Your task to perform on an android device: Go to eBay Image 0: 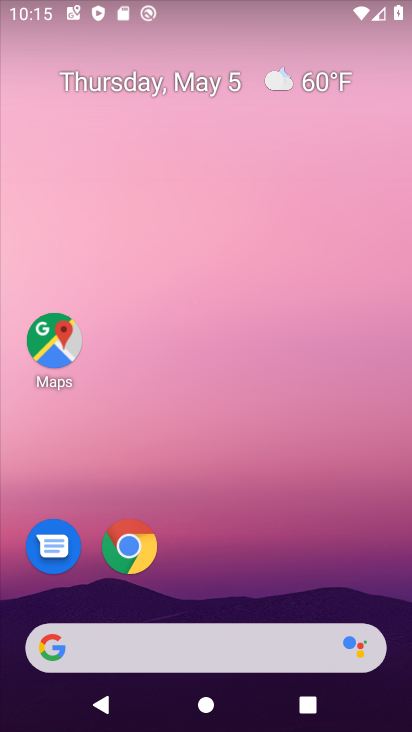
Step 0: drag from (227, 591) to (205, 180)
Your task to perform on an android device: Go to eBay Image 1: 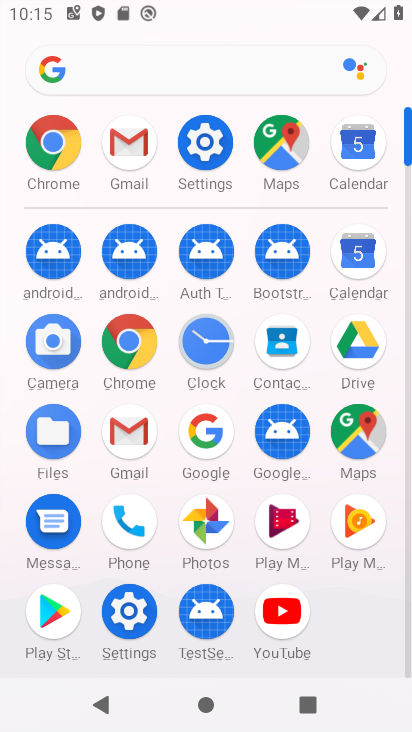
Step 1: click (65, 141)
Your task to perform on an android device: Go to eBay Image 2: 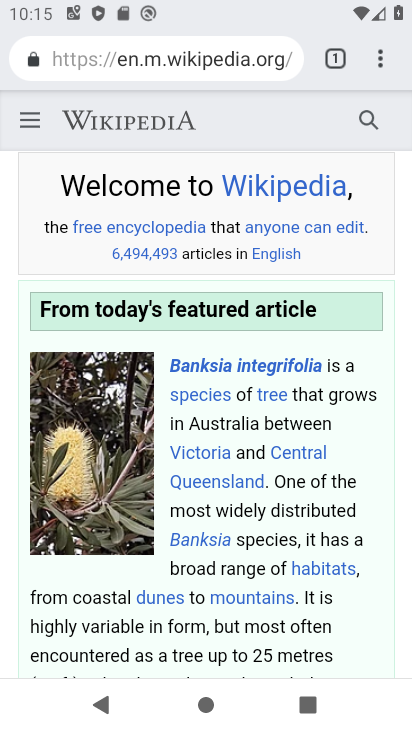
Step 2: click (181, 61)
Your task to perform on an android device: Go to eBay Image 3: 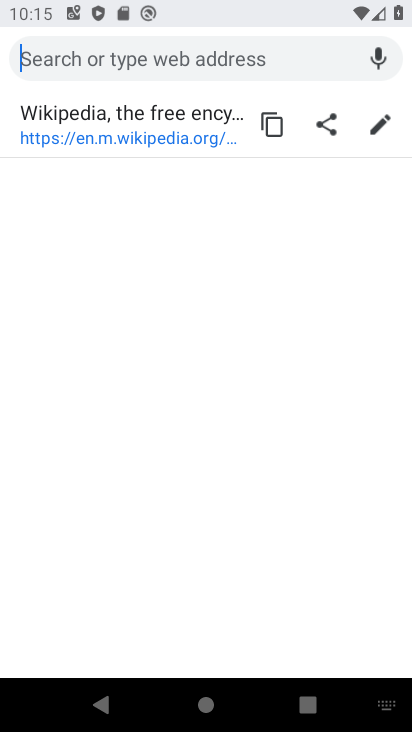
Step 3: type "ebay"
Your task to perform on an android device: Go to eBay Image 4: 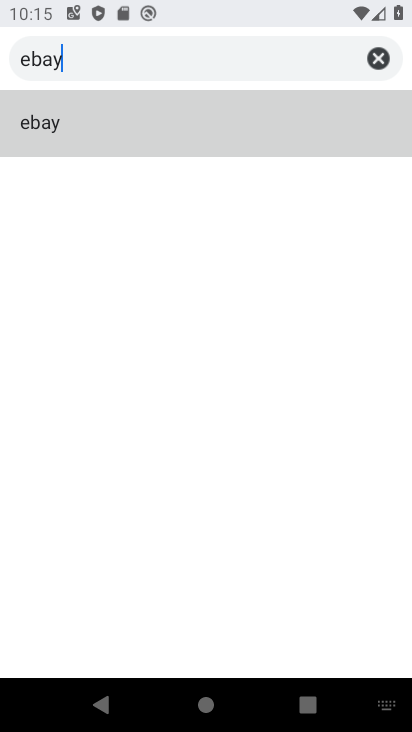
Step 4: click (125, 142)
Your task to perform on an android device: Go to eBay Image 5: 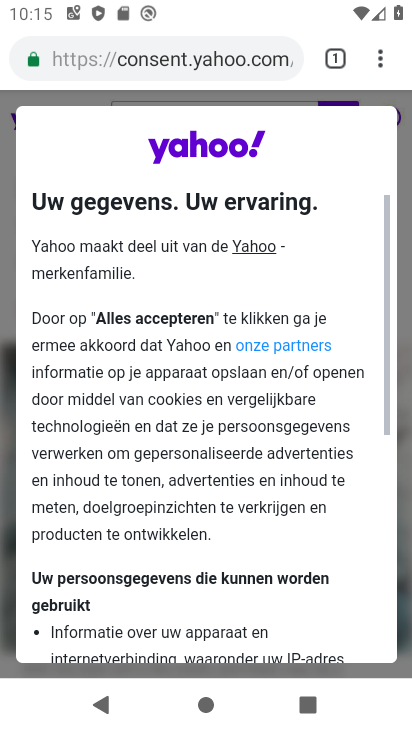
Step 5: task complete